Your task to perform on an android device: find photos in the google photos app Image 0: 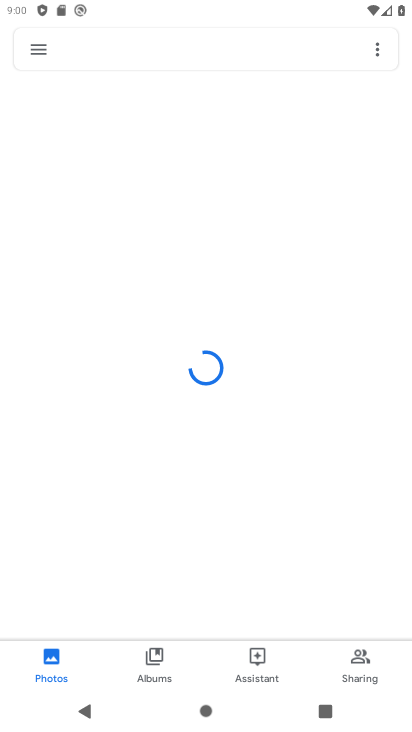
Step 0: press home button
Your task to perform on an android device: find photos in the google photos app Image 1: 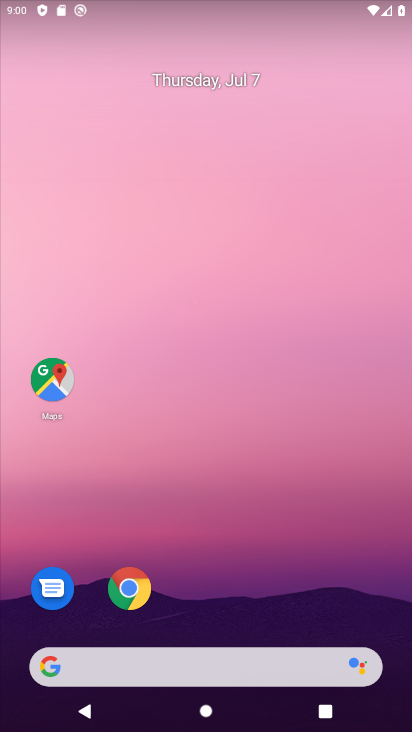
Step 1: drag from (212, 623) to (207, 226)
Your task to perform on an android device: find photos in the google photos app Image 2: 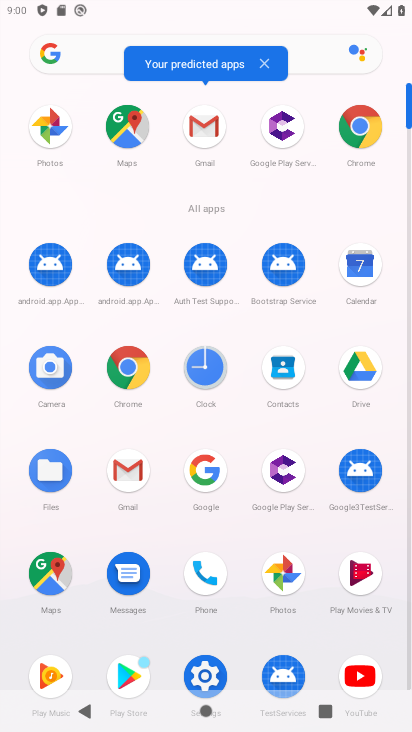
Step 2: click (53, 134)
Your task to perform on an android device: find photos in the google photos app Image 3: 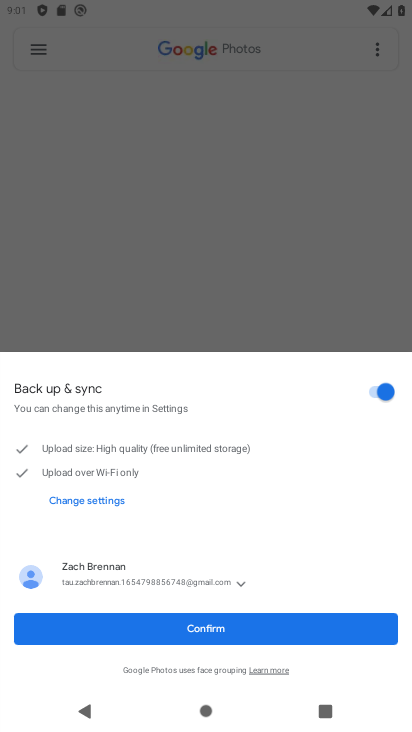
Step 3: click (220, 636)
Your task to perform on an android device: find photos in the google photos app Image 4: 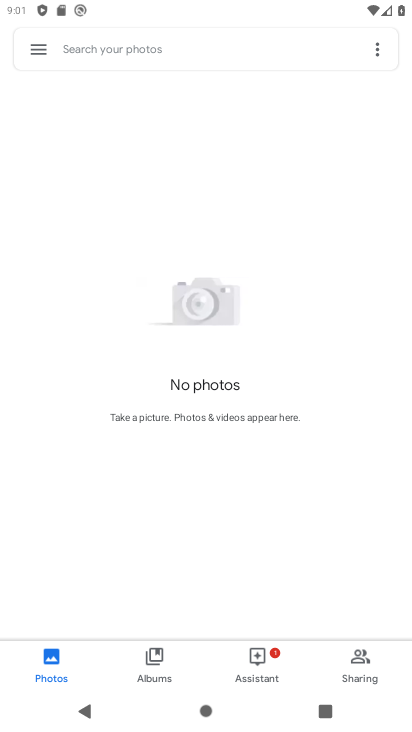
Step 4: task complete